Your task to perform on an android device: install app "Gboard" Image 0: 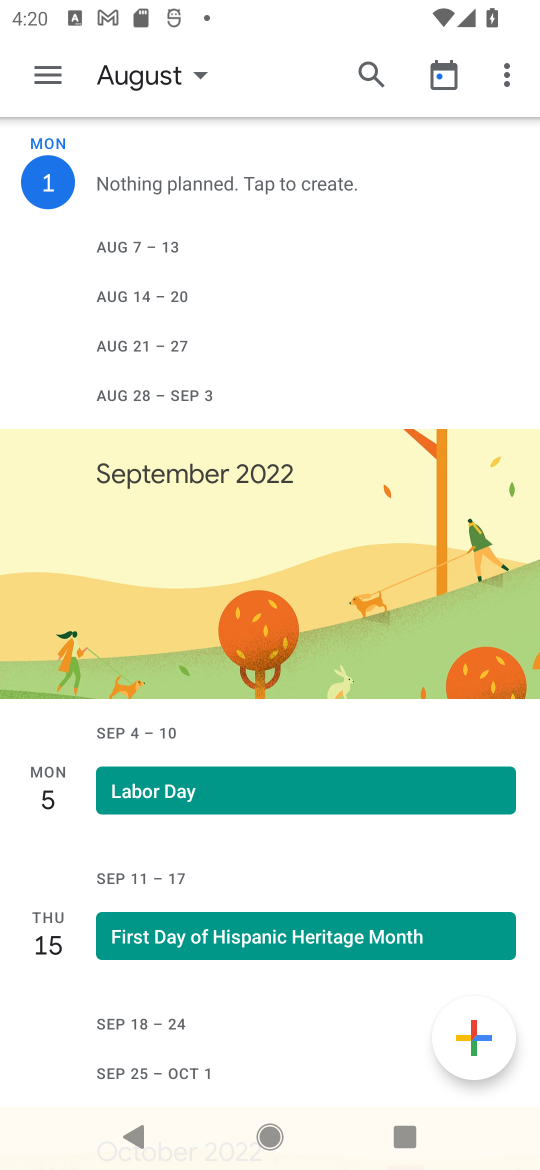
Step 0: press home button
Your task to perform on an android device: install app "Gboard" Image 1: 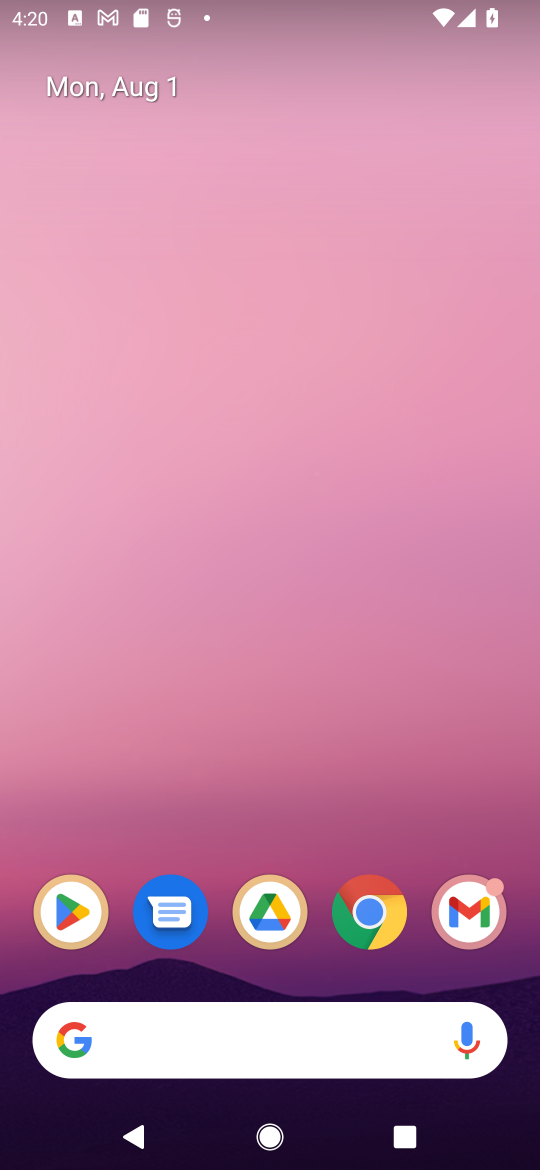
Step 1: click (74, 923)
Your task to perform on an android device: install app "Gboard" Image 2: 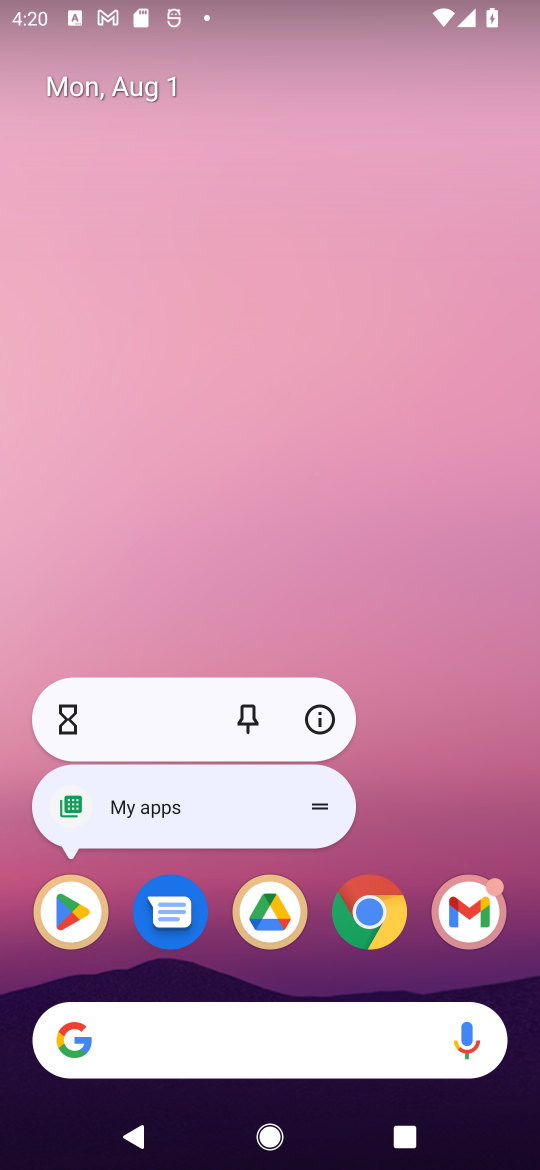
Step 2: click (74, 923)
Your task to perform on an android device: install app "Gboard" Image 3: 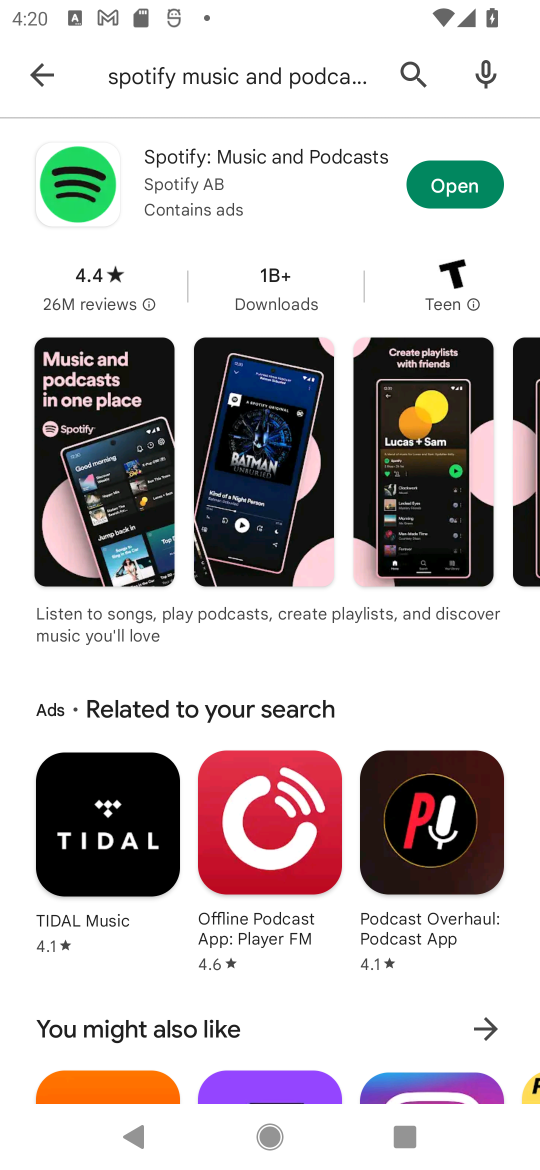
Step 3: click (411, 60)
Your task to perform on an android device: install app "Gboard" Image 4: 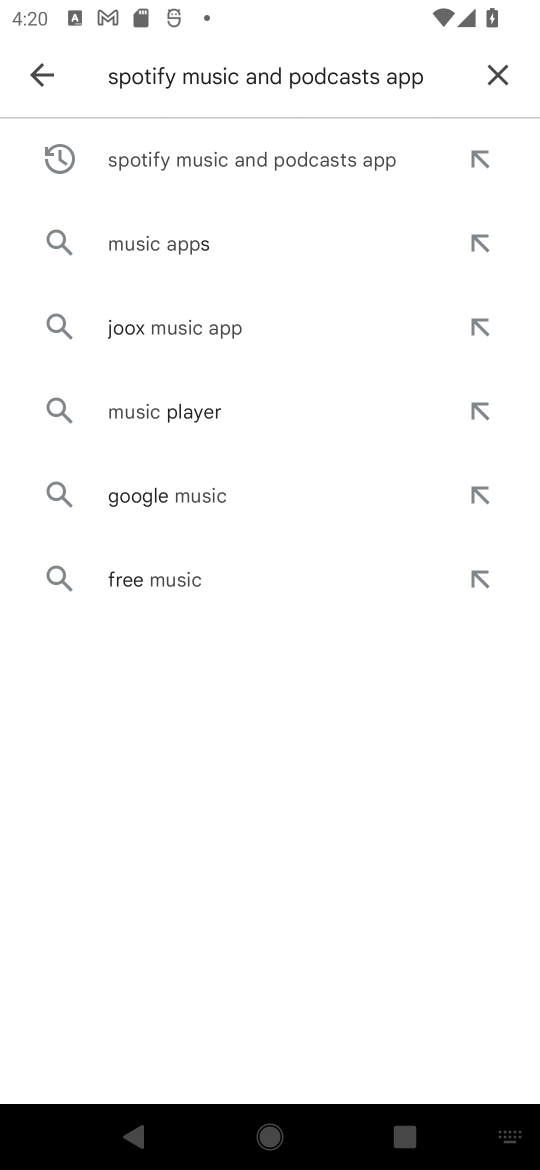
Step 4: click (507, 74)
Your task to perform on an android device: install app "Gboard" Image 5: 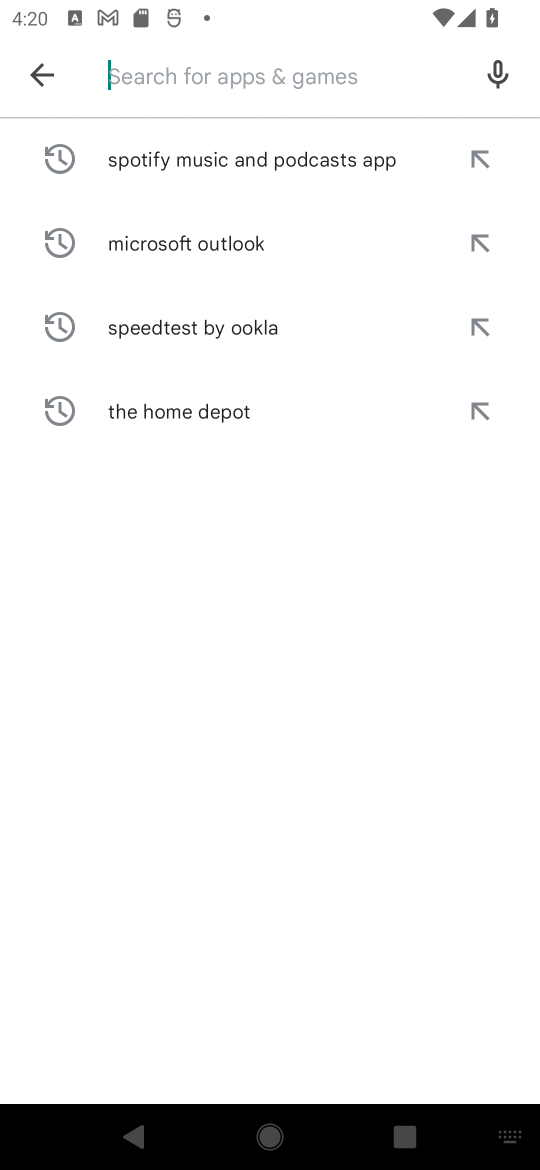
Step 5: click (213, 81)
Your task to perform on an android device: install app "Gboard" Image 6: 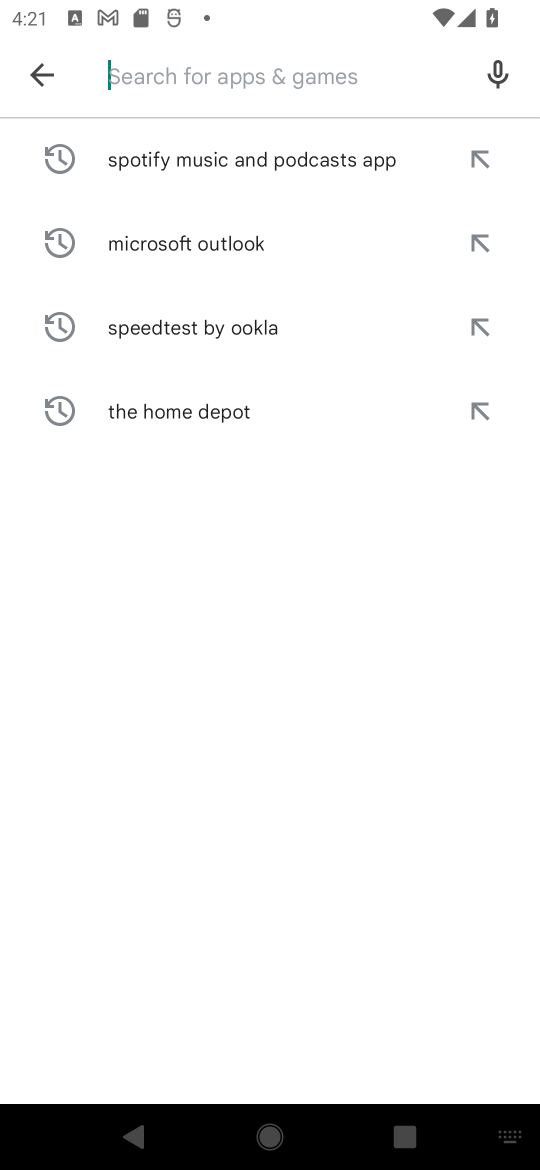
Step 6: type "Gboard"
Your task to perform on an android device: install app "Gboard" Image 7: 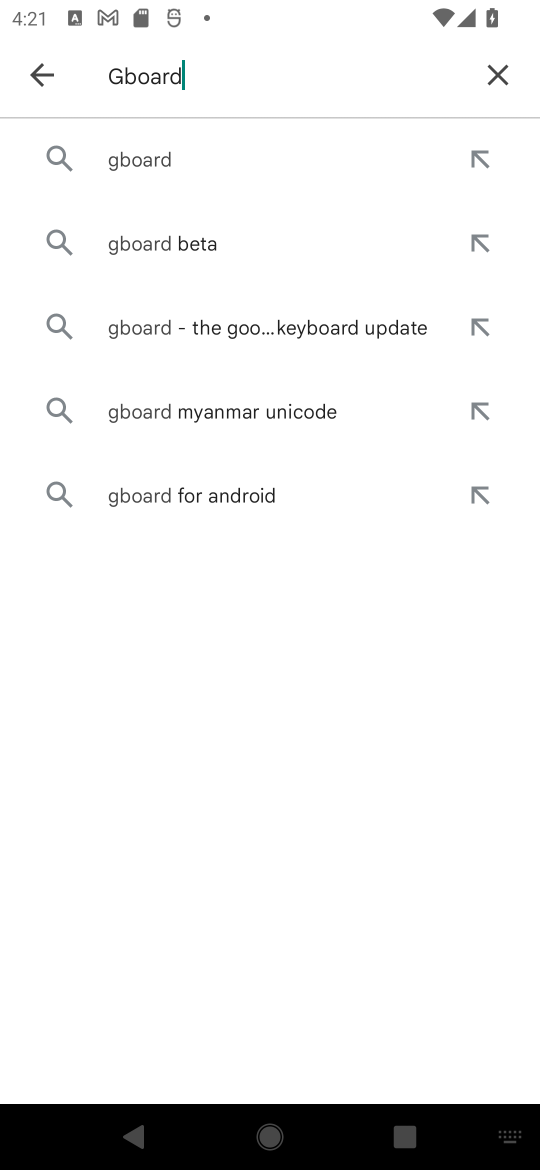
Step 7: click (165, 157)
Your task to perform on an android device: install app "Gboard" Image 8: 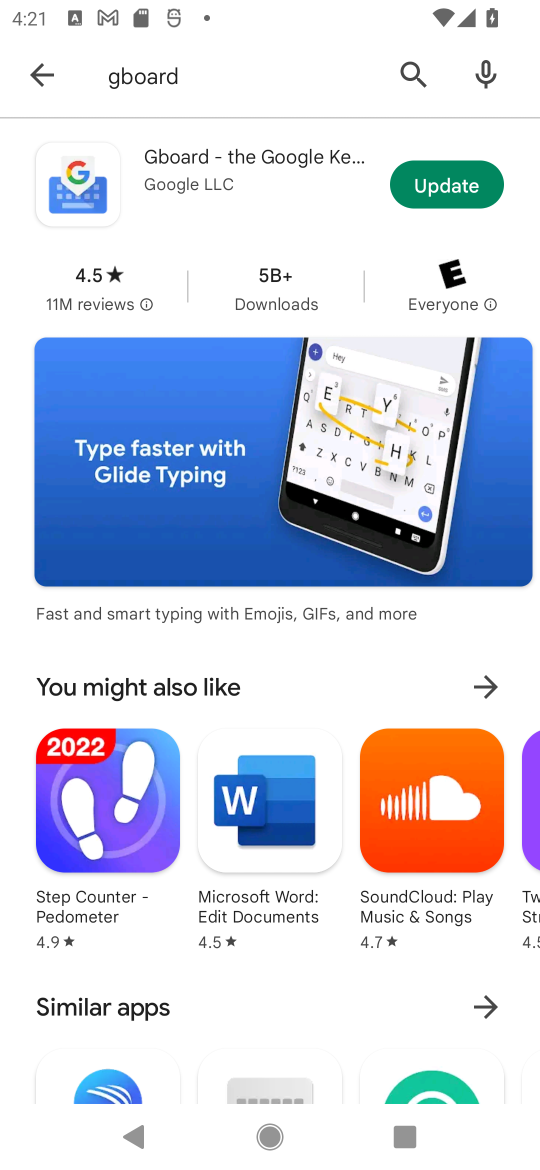
Step 8: task complete